Your task to perform on an android device: change timer sound Image 0: 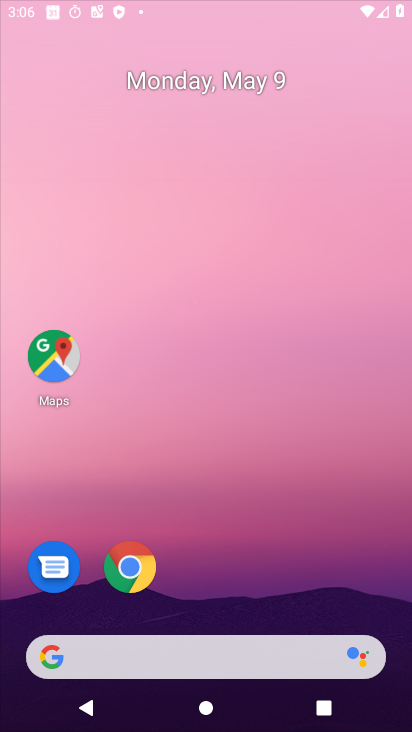
Step 0: click (179, 197)
Your task to perform on an android device: change timer sound Image 1: 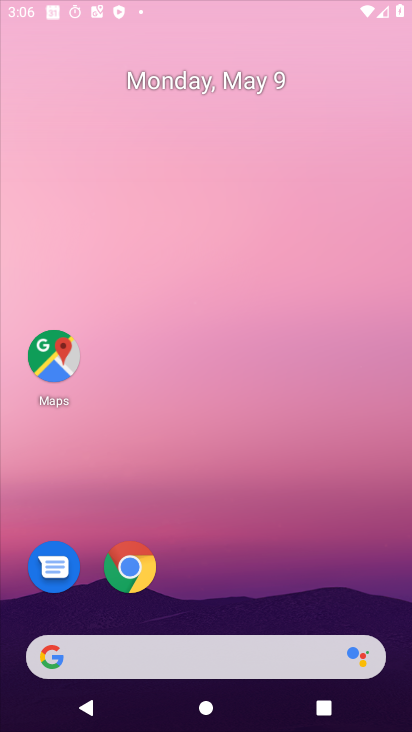
Step 1: drag from (210, 158) to (215, 62)
Your task to perform on an android device: change timer sound Image 2: 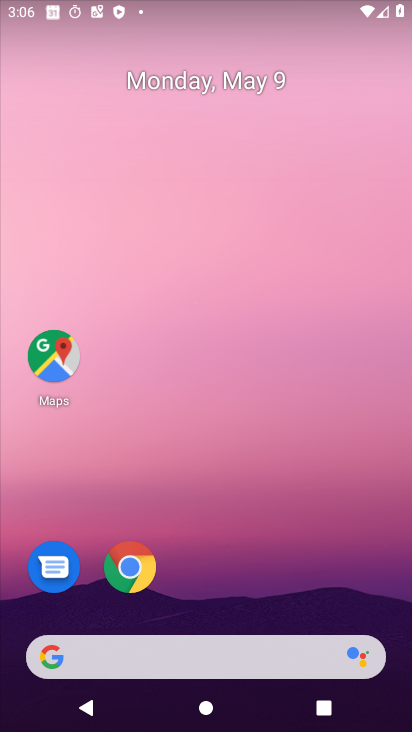
Step 2: drag from (256, 625) to (250, 44)
Your task to perform on an android device: change timer sound Image 3: 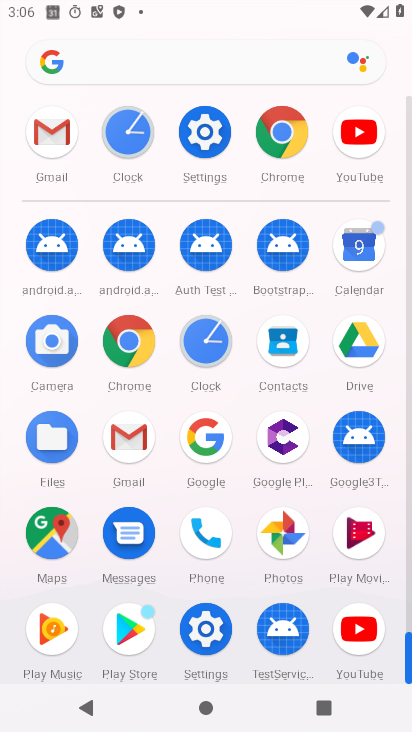
Step 3: click (130, 145)
Your task to perform on an android device: change timer sound Image 4: 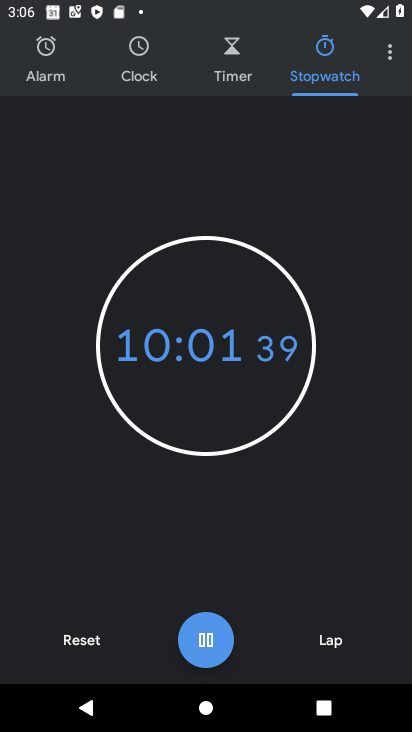
Step 4: click (398, 50)
Your task to perform on an android device: change timer sound Image 5: 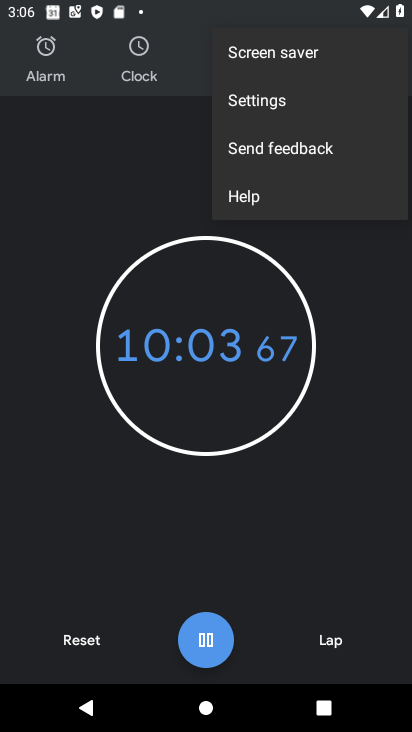
Step 5: click (272, 100)
Your task to perform on an android device: change timer sound Image 6: 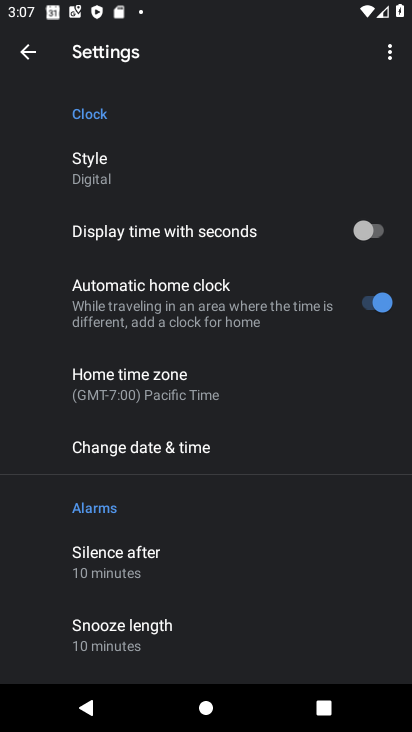
Step 6: drag from (240, 612) to (223, 191)
Your task to perform on an android device: change timer sound Image 7: 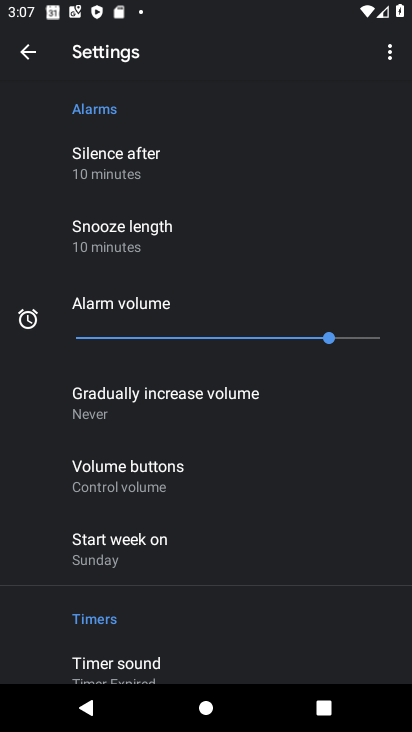
Step 7: click (145, 656)
Your task to perform on an android device: change timer sound Image 8: 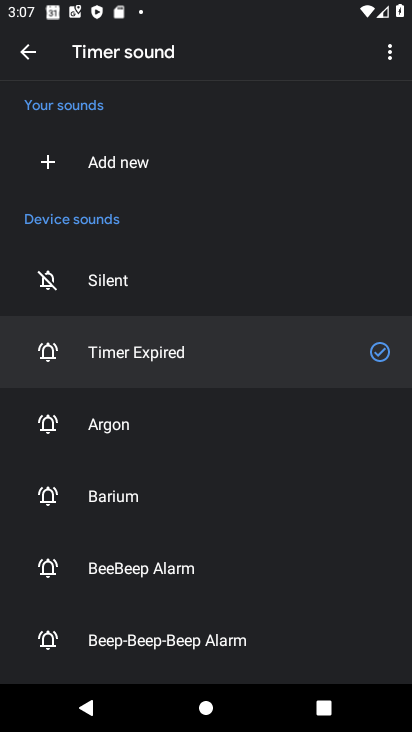
Step 8: click (109, 432)
Your task to perform on an android device: change timer sound Image 9: 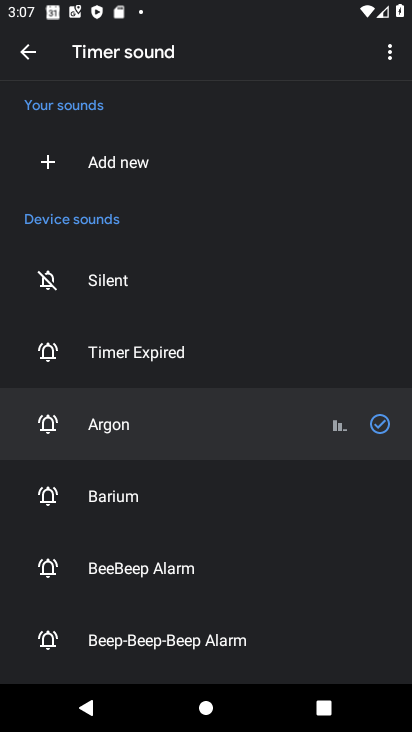
Step 9: task complete